Your task to perform on an android device: Open network settings Image 0: 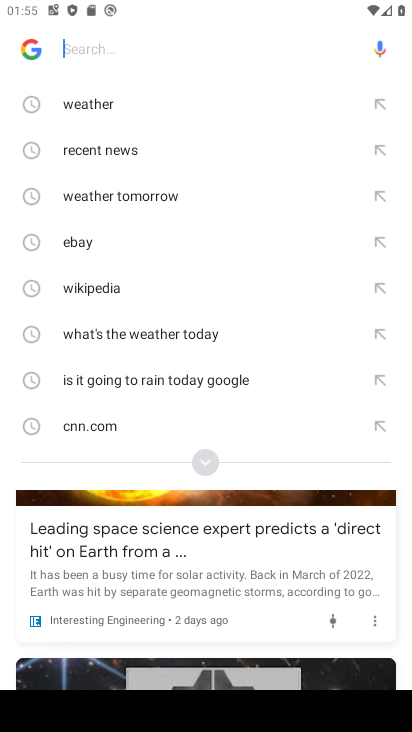
Step 0: press home button
Your task to perform on an android device: Open network settings Image 1: 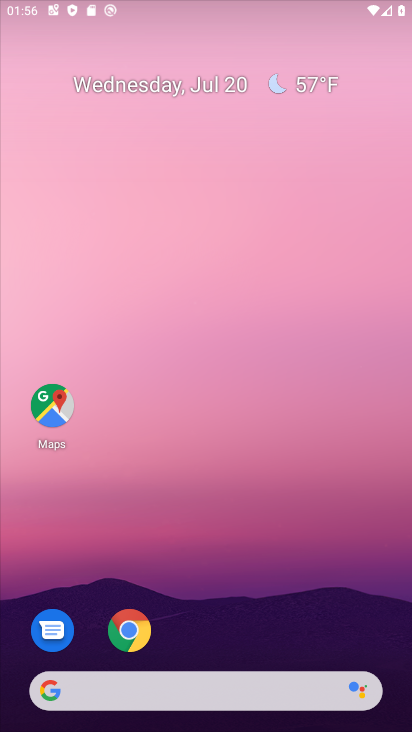
Step 1: drag from (230, 560) to (215, 104)
Your task to perform on an android device: Open network settings Image 2: 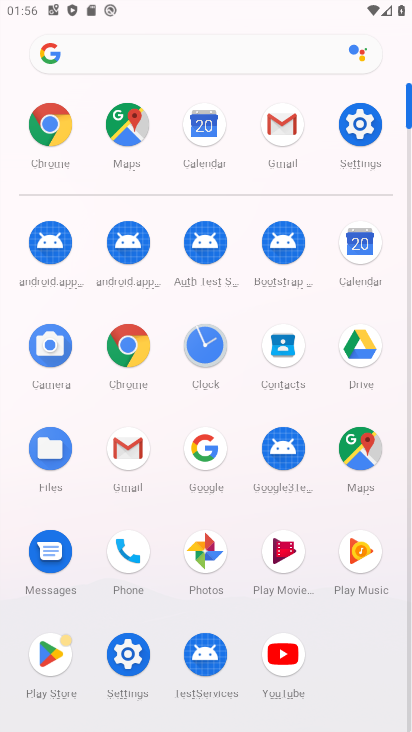
Step 2: click (361, 120)
Your task to perform on an android device: Open network settings Image 3: 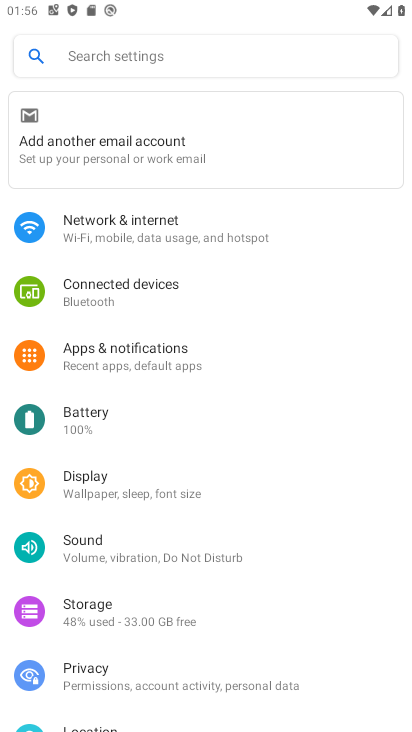
Step 3: click (128, 233)
Your task to perform on an android device: Open network settings Image 4: 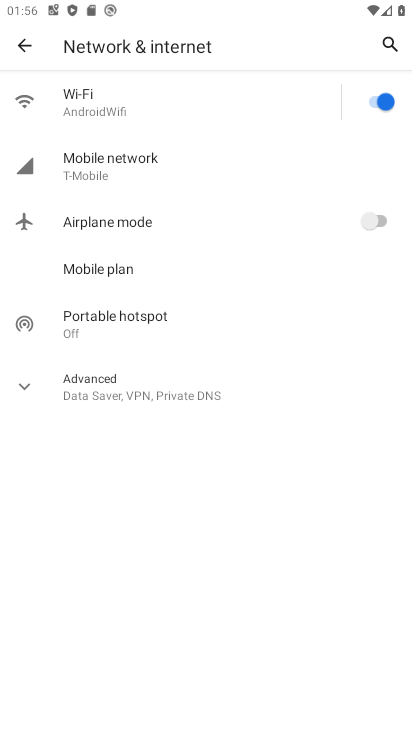
Step 4: task complete